Your task to perform on an android device: Open calendar and show me the second week of next month Image 0: 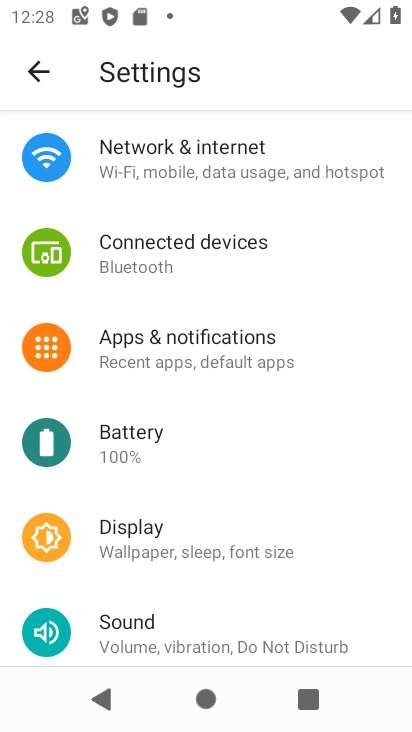
Step 0: press home button
Your task to perform on an android device: Open calendar and show me the second week of next month Image 1: 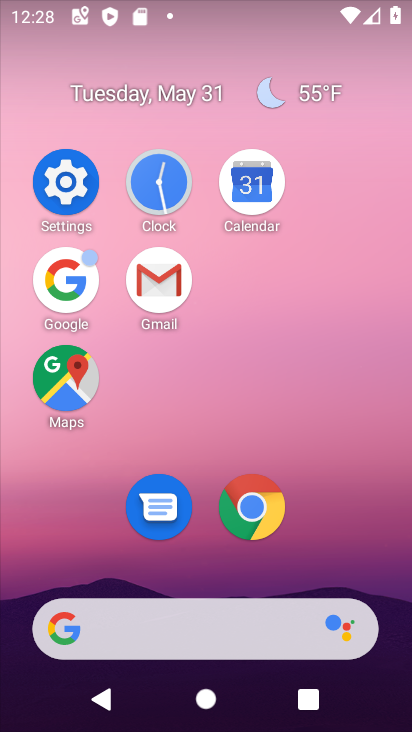
Step 1: click (275, 200)
Your task to perform on an android device: Open calendar and show me the second week of next month Image 2: 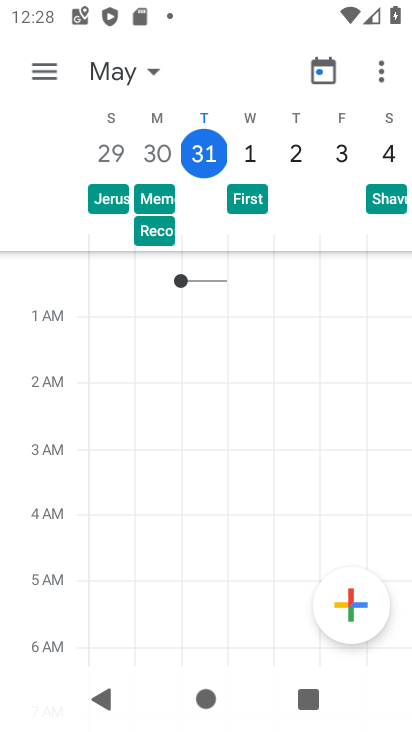
Step 2: click (115, 73)
Your task to perform on an android device: Open calendar and show me the second week of next month Image 3: 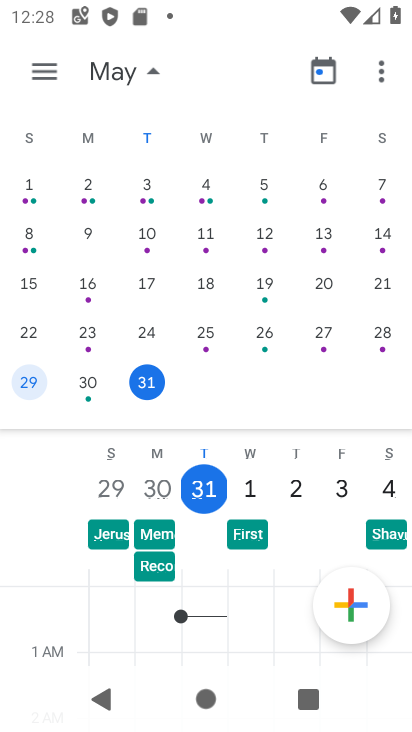
Step 3: drag from (364, 258) to (79, 283)
Your task to perform on an android device: Open calendar and show me the second week of next month Image 4: 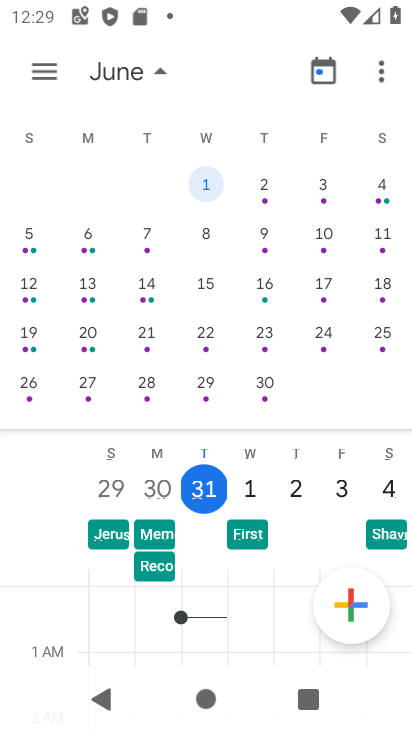
Step 4: click (44, 84)
Your task to perform on an android device: Open calendar and show me the second week of next month Image 5: 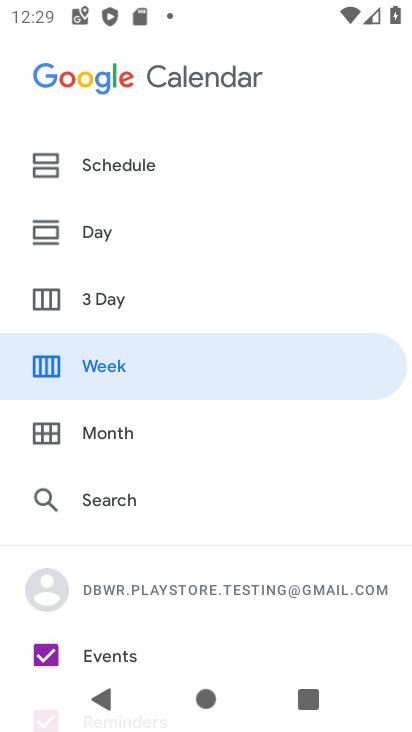
Step 5: click (165, 377)
Your task to perform on an android device: Open calendar and show me the second week of next month Image 6: 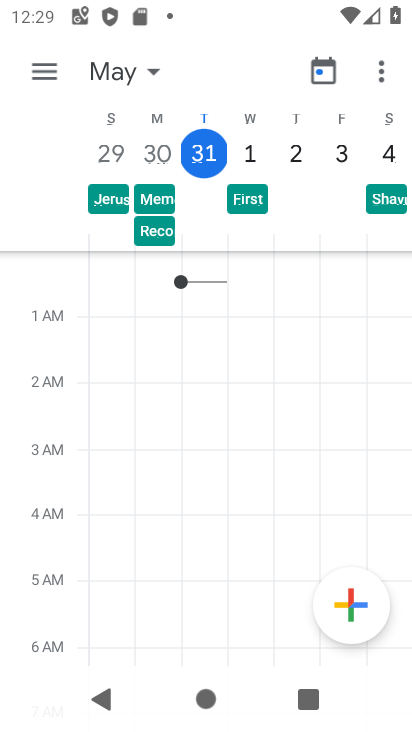
Step 6: task complete